Your task to perform on an android device: Show the shopping cart on amazon. Image 0: 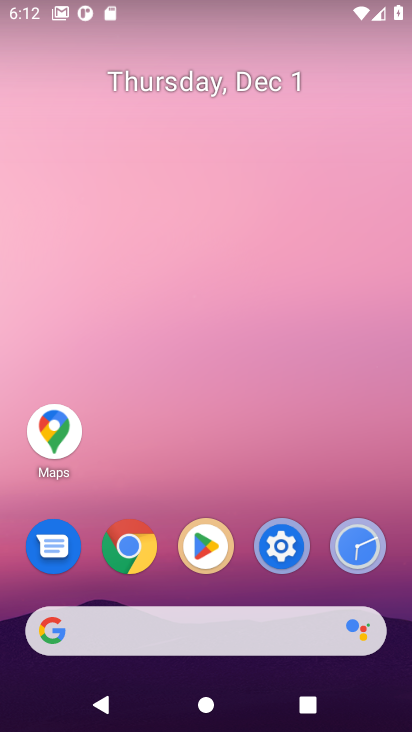
Step 0: click (131, 555)
Your task to perform on an android device: Show the shopping cart on amazon. Image 1: 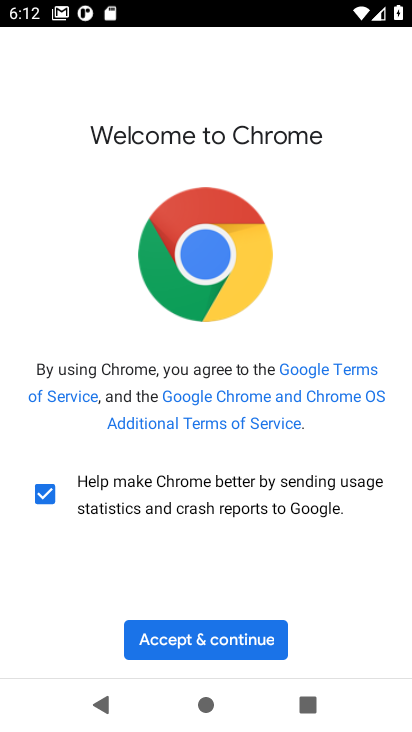
Step 1: click (167, 631)
Your task to perform on an android device: Show the shopping cart on amazon. Image 2: 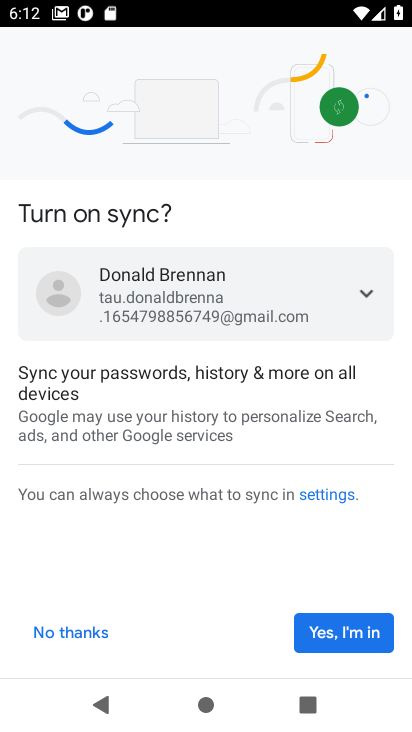
Step 2: click (61, 628)
Your task to perform on an android device: Show the shopping cart on amazon. Image 3: 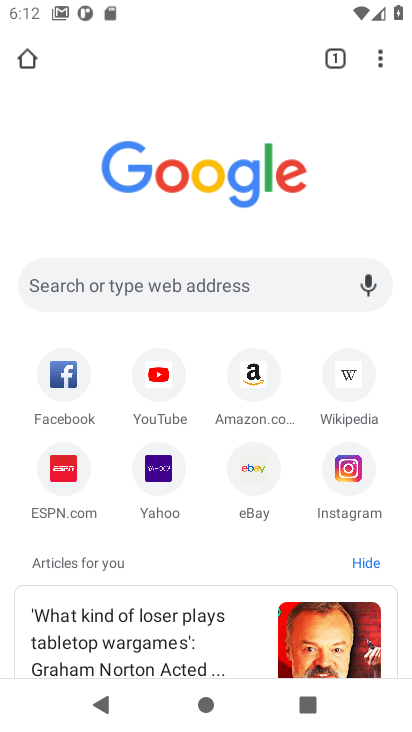
Step 3: click (250, 383)
Your task to perform on an android device: Show the shopping cart on amazon. Image 4: 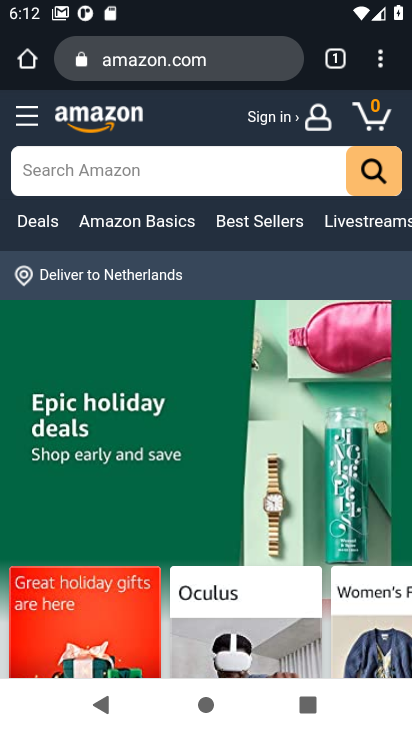
Step 4: click (376, 121)
Your task to perform on an android device: Show the shopping cart on amazon. Image 5: 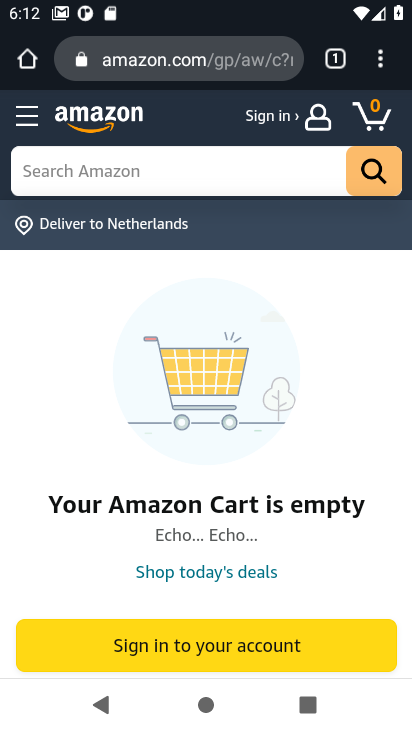
Step 5: task complete